Your task to perform on an android device: change the upload size in google photos Image 0: 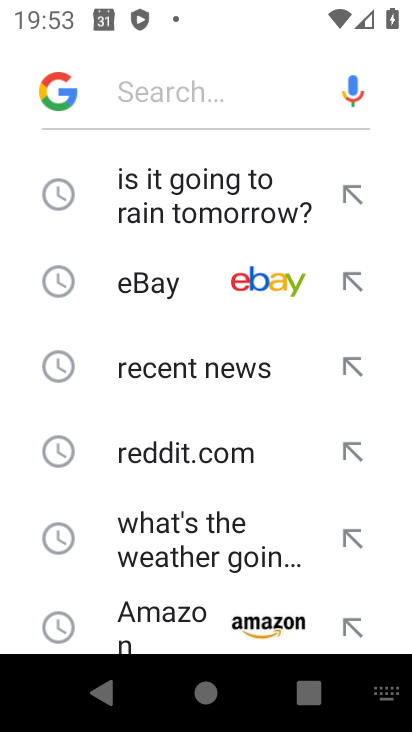
Step 0: press home button
Your task to perform on an android device: change the upload size in google photos Image 1: 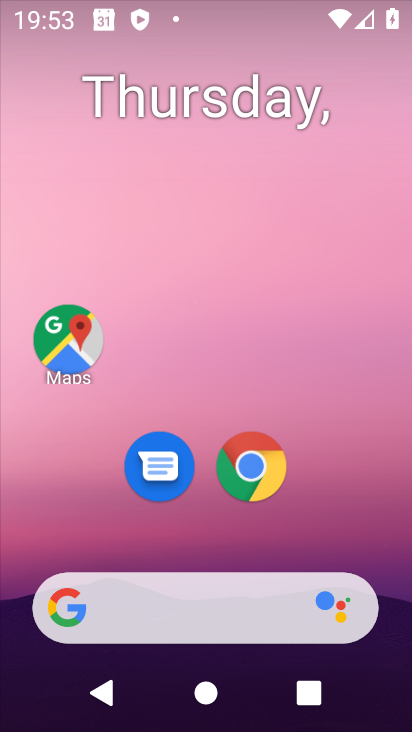
Step 1: drag from (332, 521) to (245, 45)
Your task to perform on an android device: change the upload size in google photos Image 2: 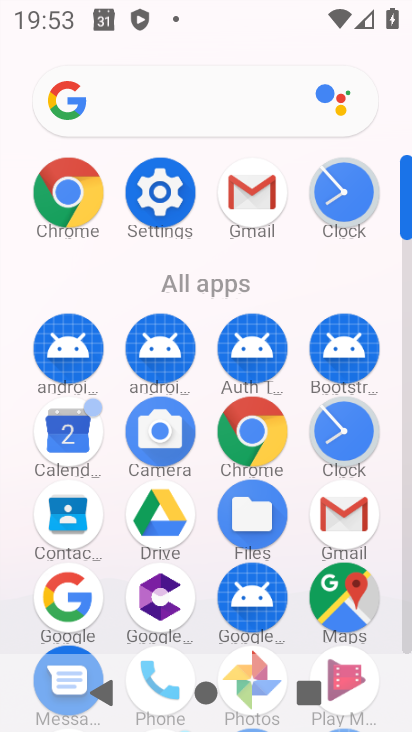
Step 2: drag from (114, 635) to (111, 449)
Your task to perform on an android device: change the upload size in google photos Image 3: 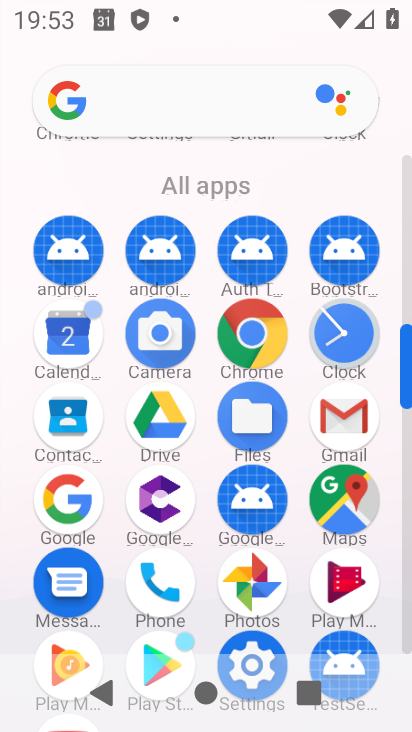
Step 3: click (233, 566)
Your task to perform on an android device: change the upload size in google photos Image 4: 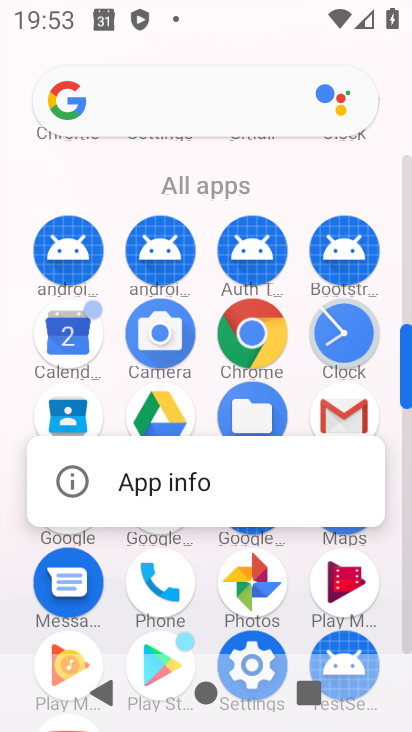
Step 4: click (233, 566)
Your task to perform on an android device: change the upload size in google photos Image 5: 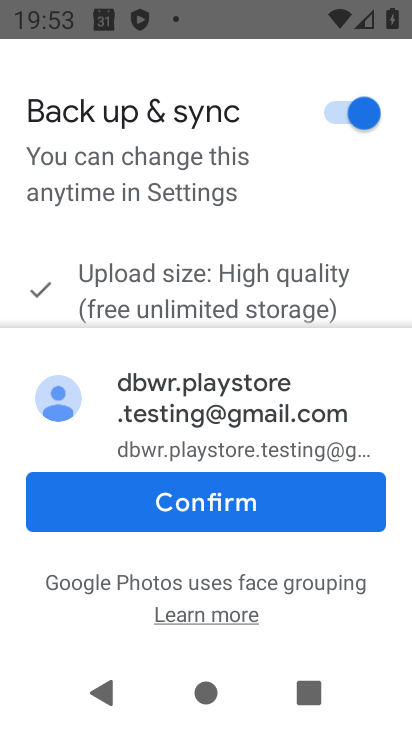
Step 5: click (170, 496)
Your task to perform on an android device: change the upload size in google photos Image 6: 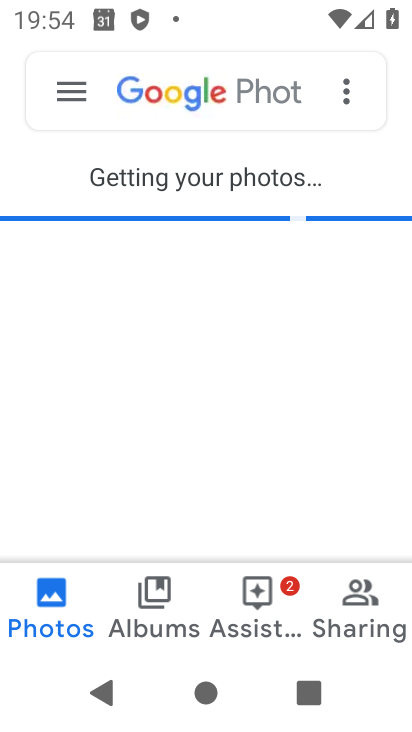
Step 6: click (66, 94)
Your task to perform on an android device: change the upload size in google photos Image 7: 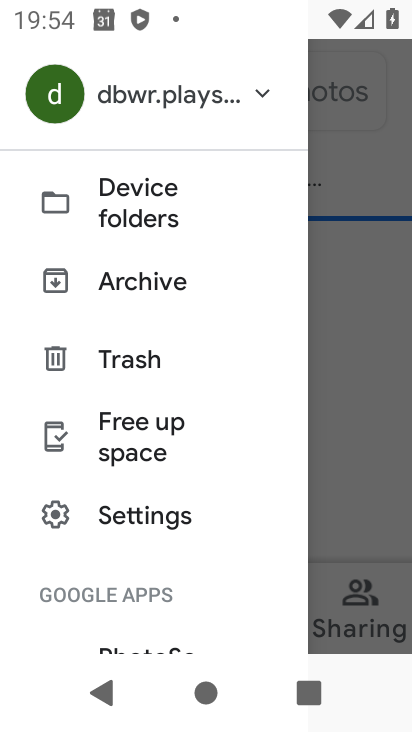
Step 7: click (156, 108)
Your task to perform on an android device: change the upload size in google photos Image 8: 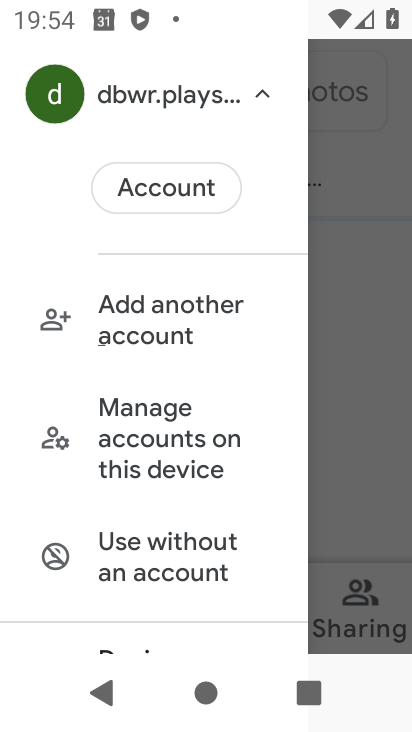
Step 8: drag from (254, 581) to (230, 3)
Your task to perform on an android device: change the upload size in google photos Image 9: 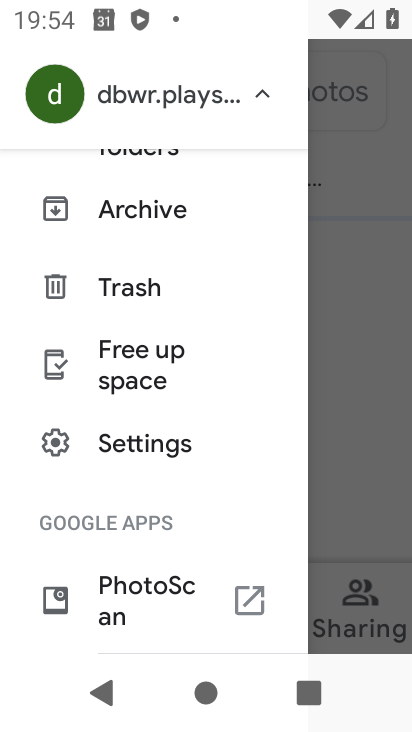
Step 9: click (172, 447)
Your task to perform on an android device: change the upload size in google photos Image 10: 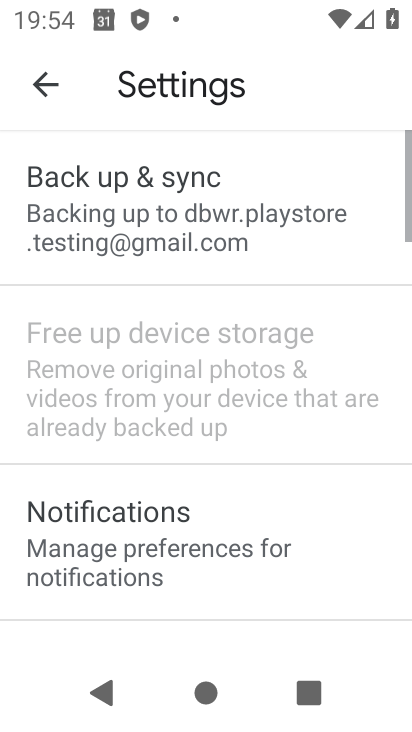
Step 10: click (113, 198)
Your task to perform on an android device: change the upload size in google photos Image 11: 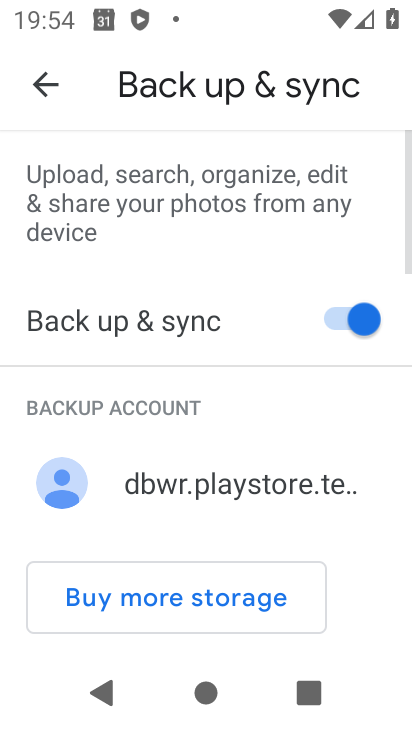
Step 11: drag from (361, 586) to (293, 201)
Your task to perform on an android device: change the upload size in google photos Image 12: 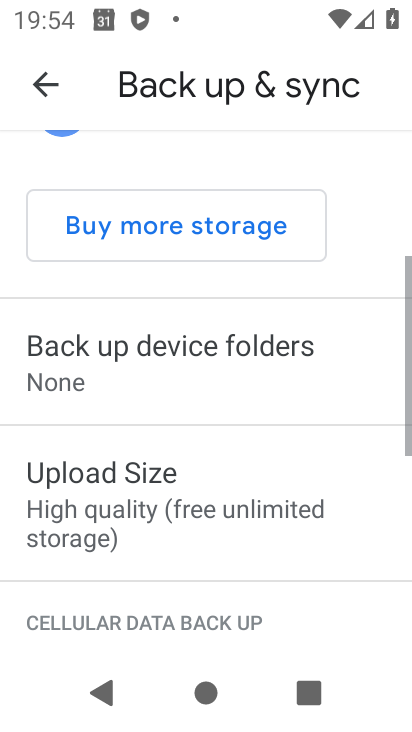
Step 12: click (256, 495)
Your task to perform on an android device: change the upload size in google photos Image 13: 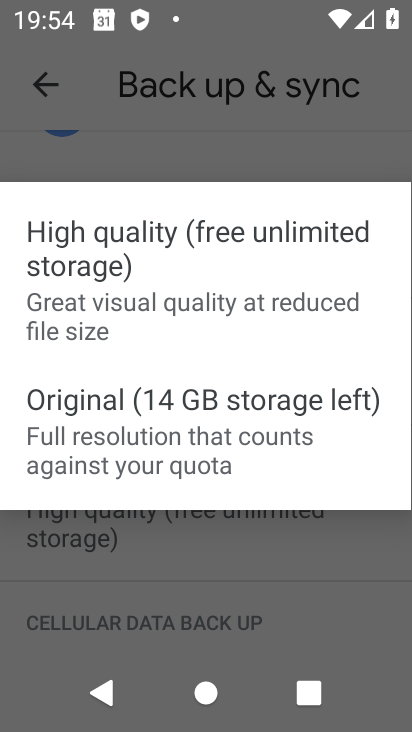
Step 13: click (203, 300)
Your task to perform on an android device: change the upload size in google photos Image 14: 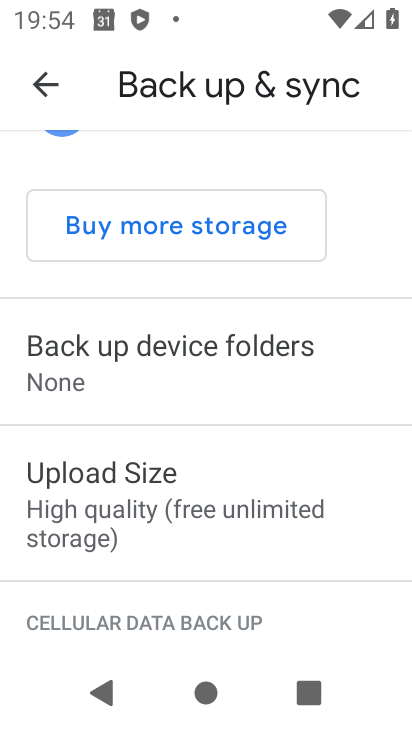
Step 14: task complete